Your task to perform on an android device: Show me popular videos on Youtube Image 0: 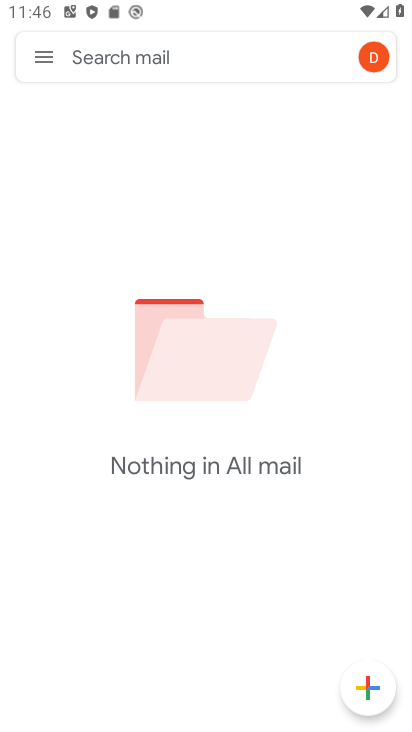
Step 0: press back button
Your task to perform on an android device: Show me popular videos on Youtube Image 1: 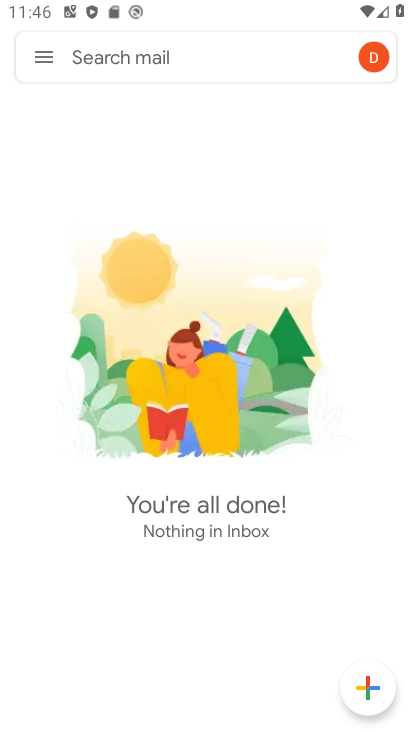
Step 1: press back button
Your task to perform on an android device: Show me popular videos on Youtube Image 2: 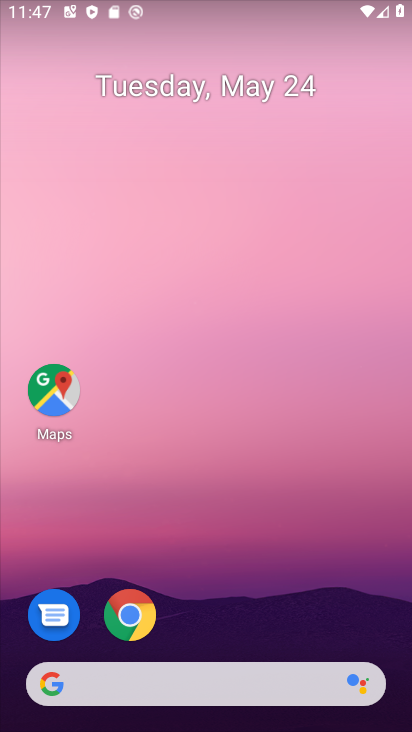
Step 2: drag from (258, 575) to (212, 104)
Your task to perform on an android device: Show me popular videos on Youtube Image 3: 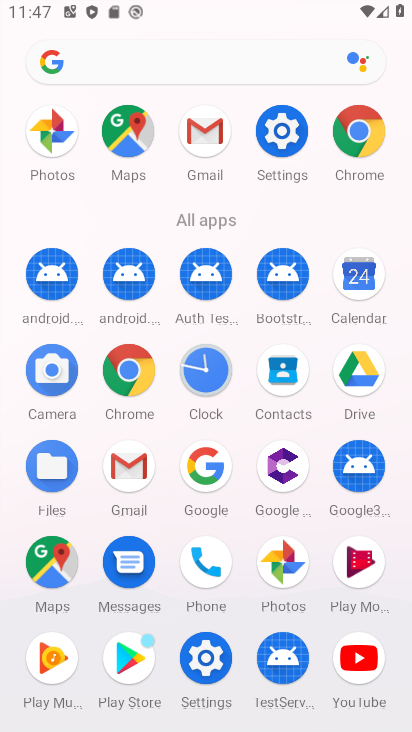
Step 3: click (359, 659)
Your task to perform on an android device: Show me popular videos on Youtube Image 4: 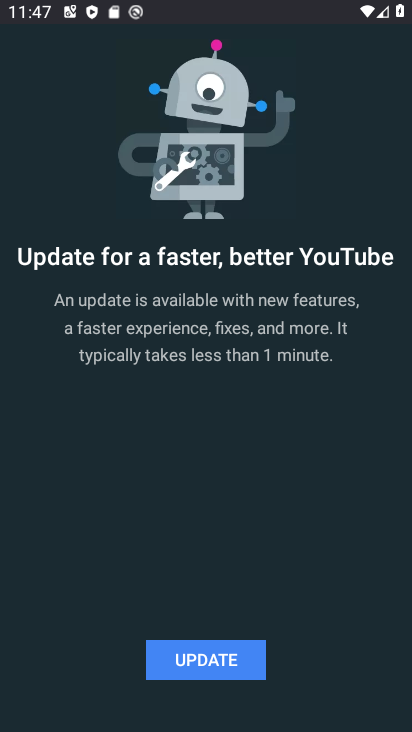
Step 4: click (213, 653)
Your task to perform on an android device: Show me popular videos on Youtube Image 5: 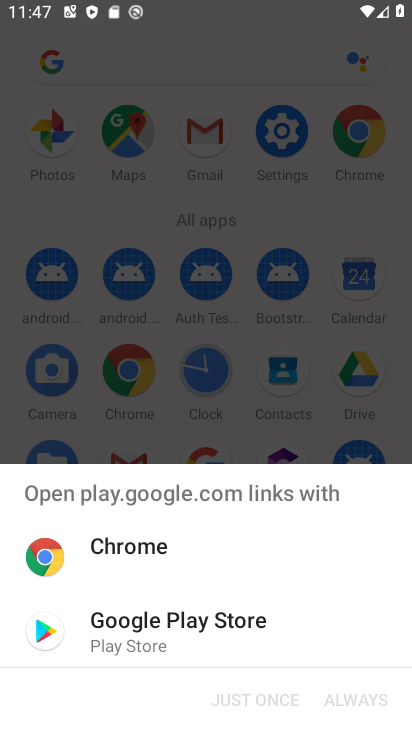
Step 5: click (209, 618)
Your task to perform on an android device: Show me popular videos on Youtube Image 6: 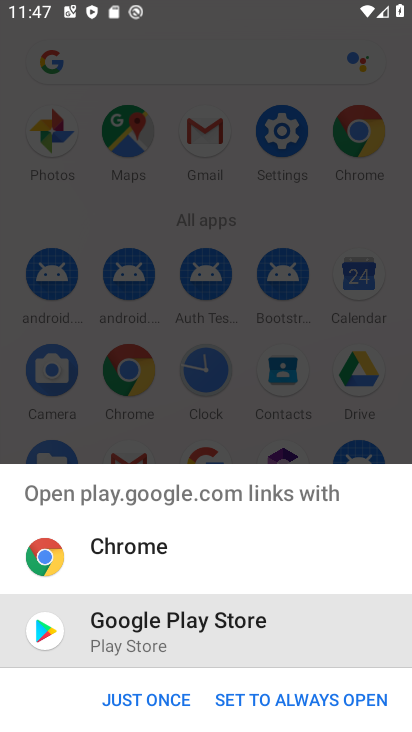
Step 6: click (135, 704)
Your task to perform on an android device: Show me popular videos on Youtube Image 7: 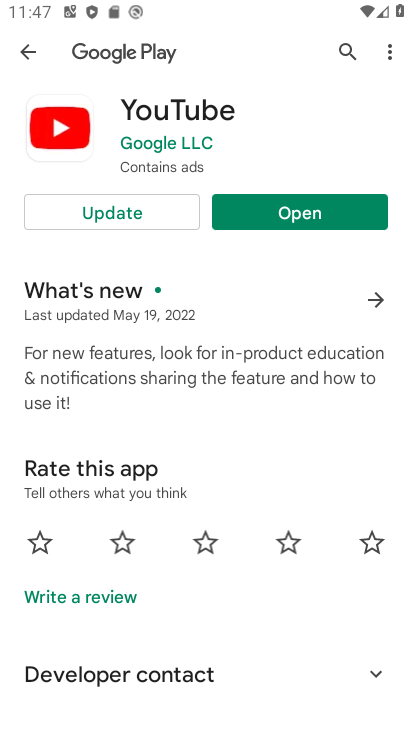
Step 7: click (123, 207)
Your task to perform on an android device: Show me popular videos on Youtube Image 8: 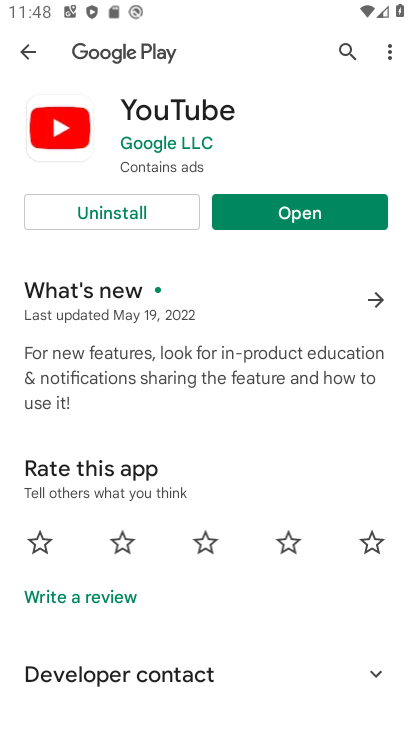
Step 8: click (302, 211)
Your task to perform on an android device: Show me popular videos on Youtube Image 9: 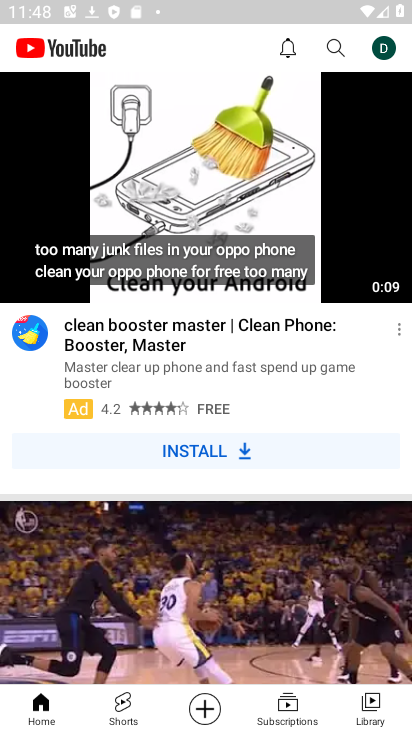
Step 9: click (334, 49)
Your task to perform on an android device: Show me popular videos on Youtube Image 10: 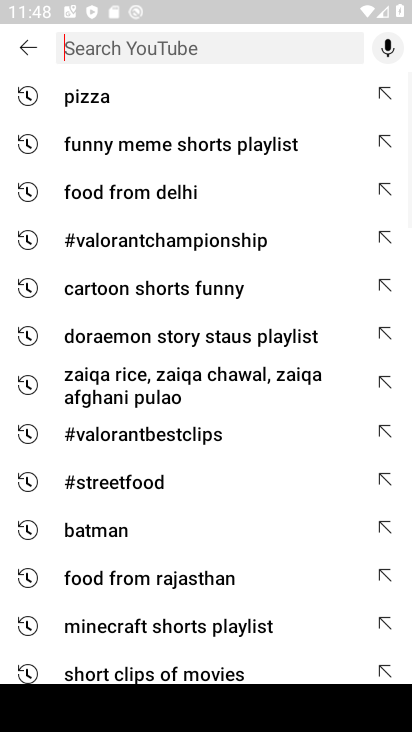
Step 10: click (200, 49)
Your task to perform on an android device: Show me popular videos on Youtube Image 11: 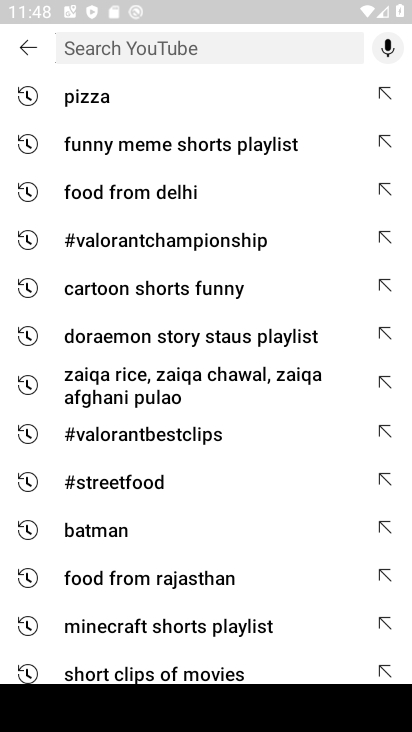
Step 11: type "popular videos"
Your task to perform on an android device: Show me popular videos on Youtube Image 12: 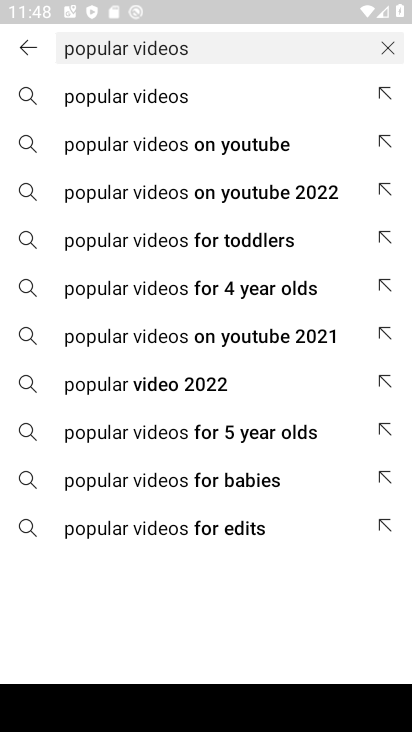
Step 12: click (225, 148)
Your task to perform on an android device: Show me popular videos on Youtube Image 13: 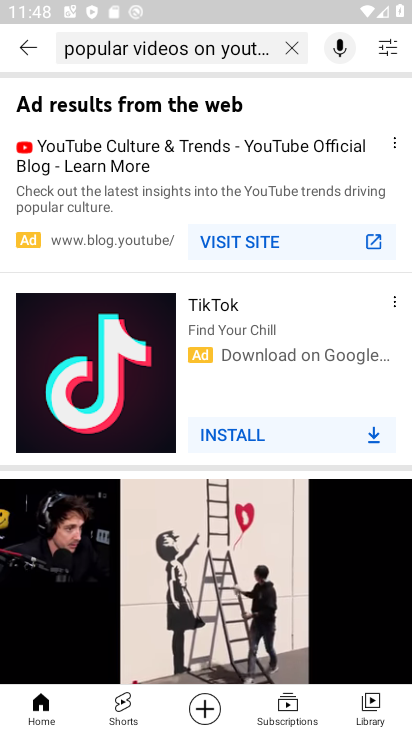
Step 13: task complete